Your task to perform on an android device: Add "usb-c to usb-b" to the cart on bestbuy.com Image 0: 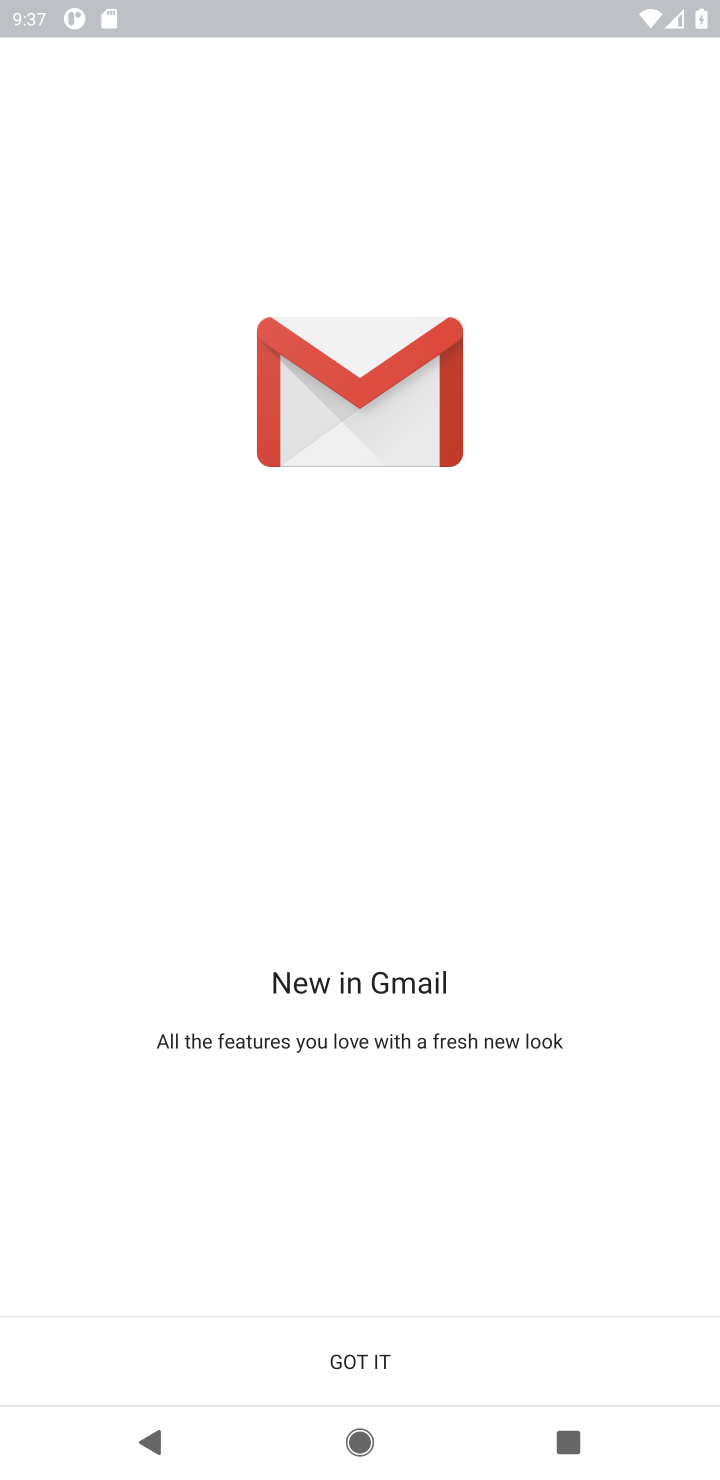
Step 0: press home button
Your task to perform on an android device: Add "usb-c to usb-b" to the cart on bestbuy.com Image 1: 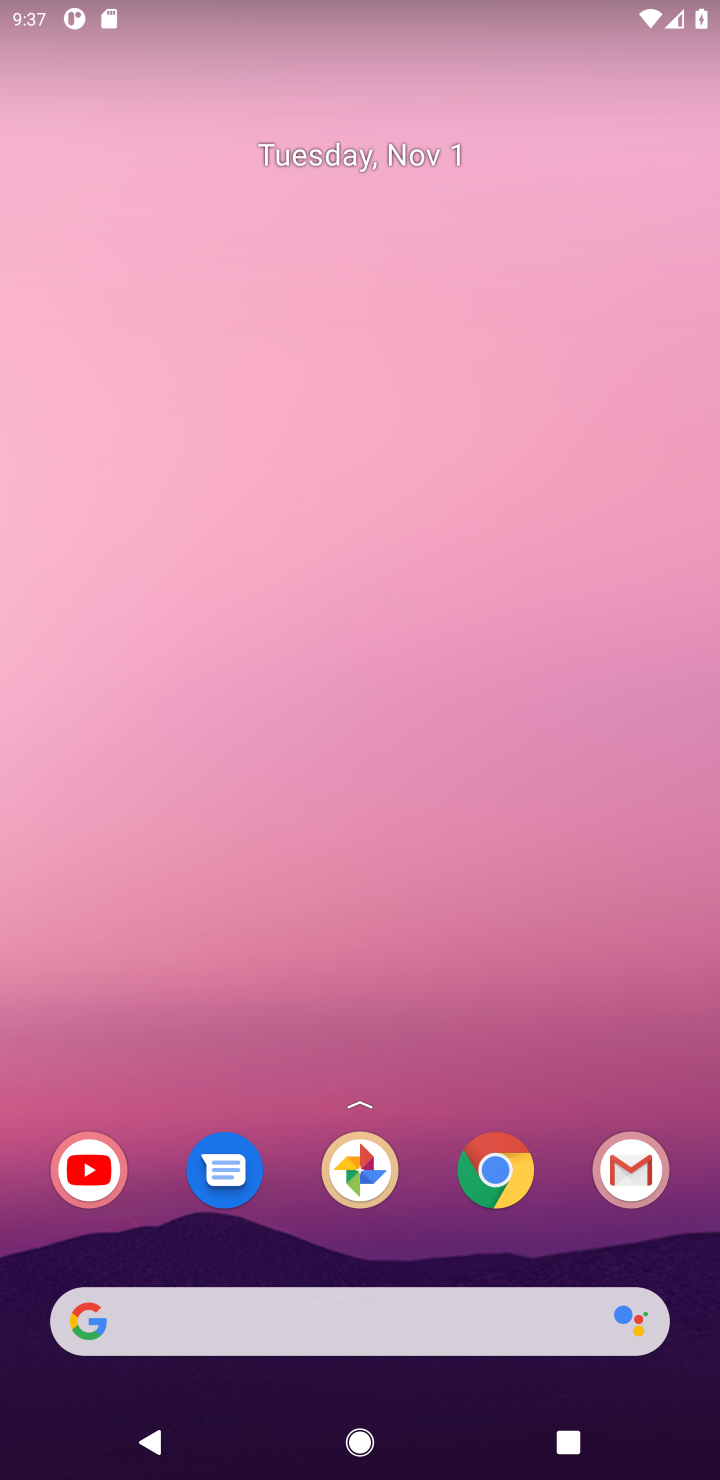
Step 1: click (503, 1202)
Your task to perform on an android device: Add "usb-c to usb-b" to the cart on bestbuy.com Image 2: 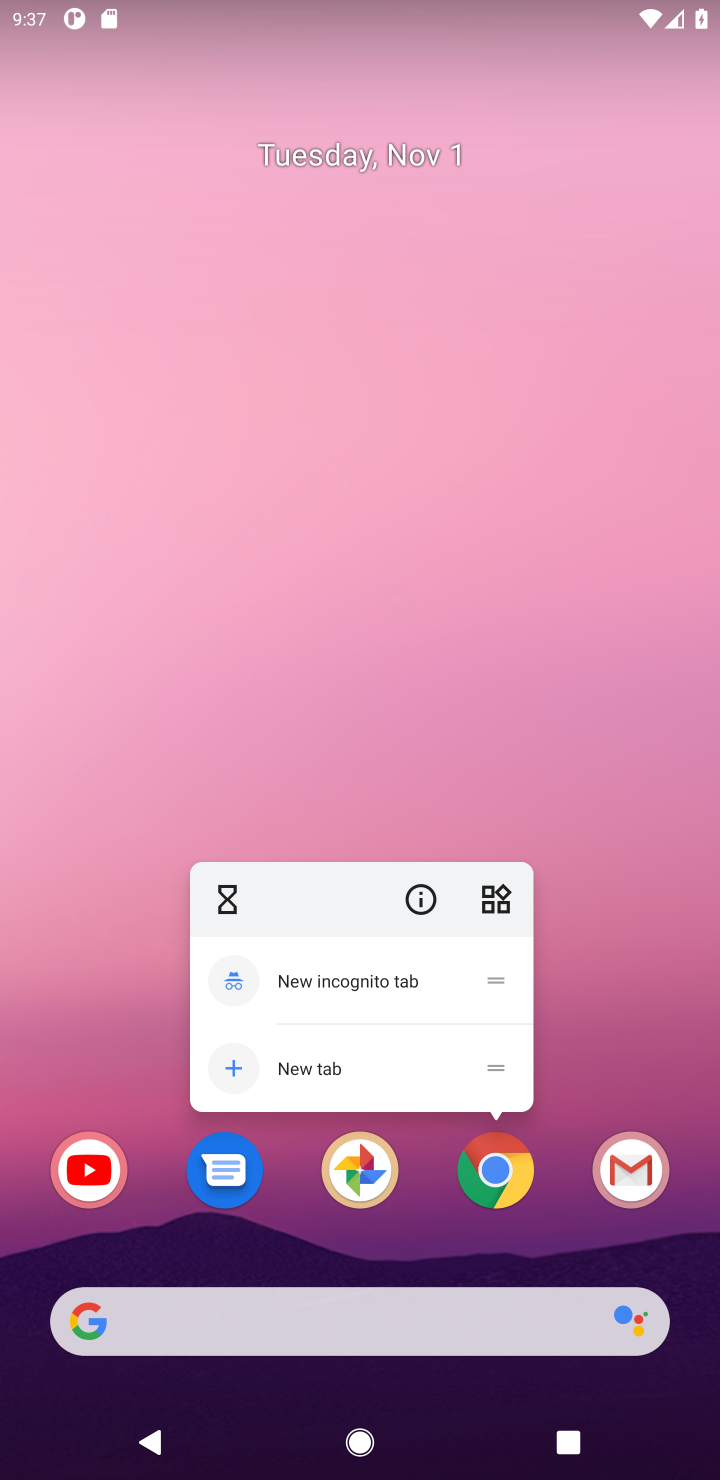
Step 2: click (514, 1169)
Your task to perform on an android device: Add "usb-c to usb-b" to the cart on bestbuy.com Image 3: 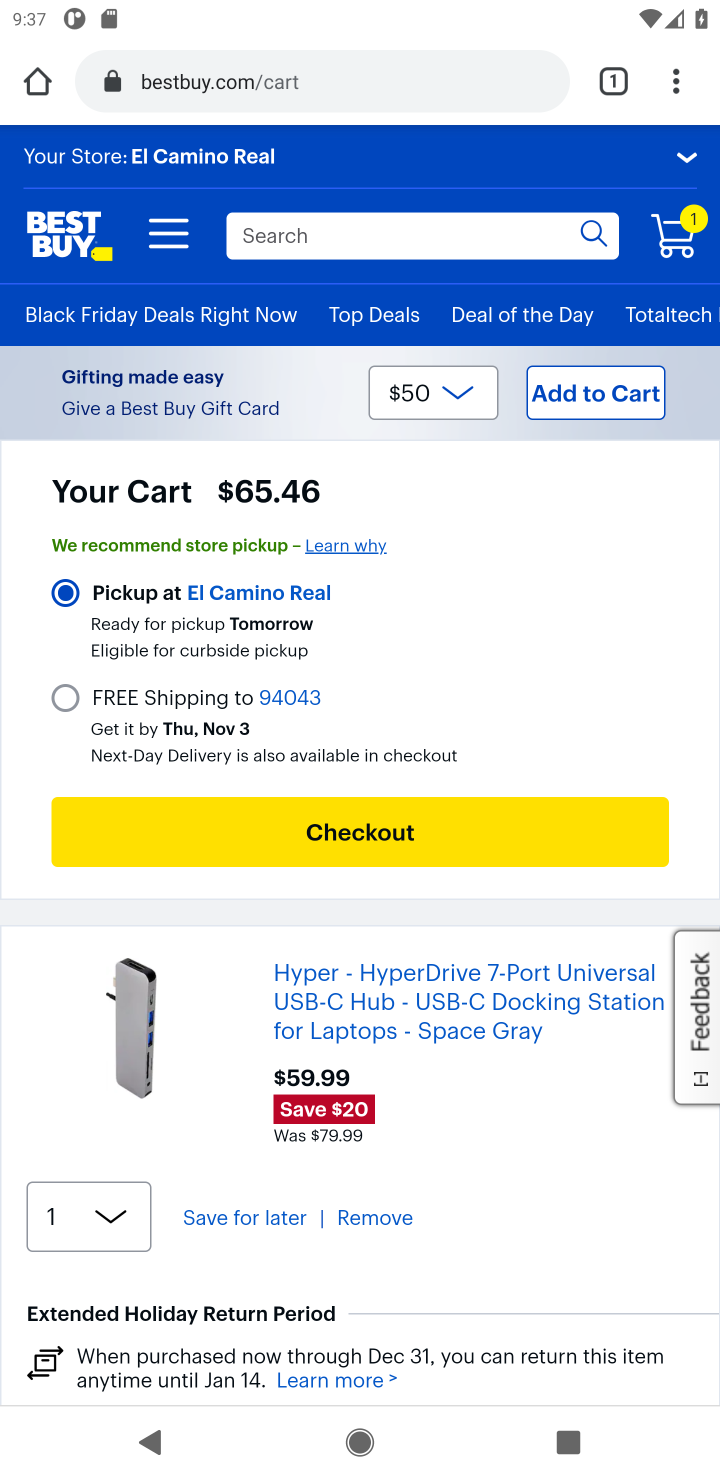
Step 3: click (344, 57)
Your task to perform on an android device: Add "usb-c to usb-b" to the cart on bestbuy.com Image 4: 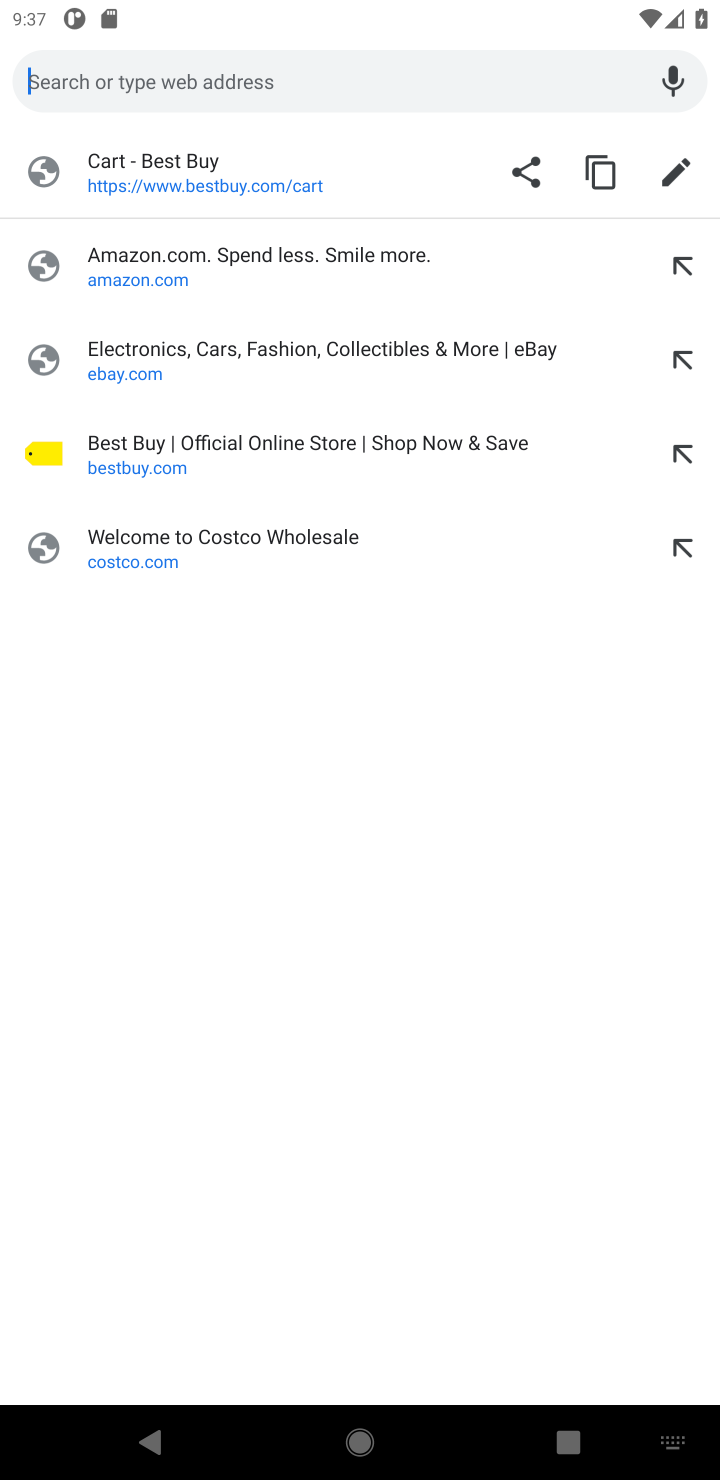
Step 4: type "bestbuy.com"
Your task to perform on an android device: Add "usb-c to usb-b" to the cart on bestbuy.com Image 5: 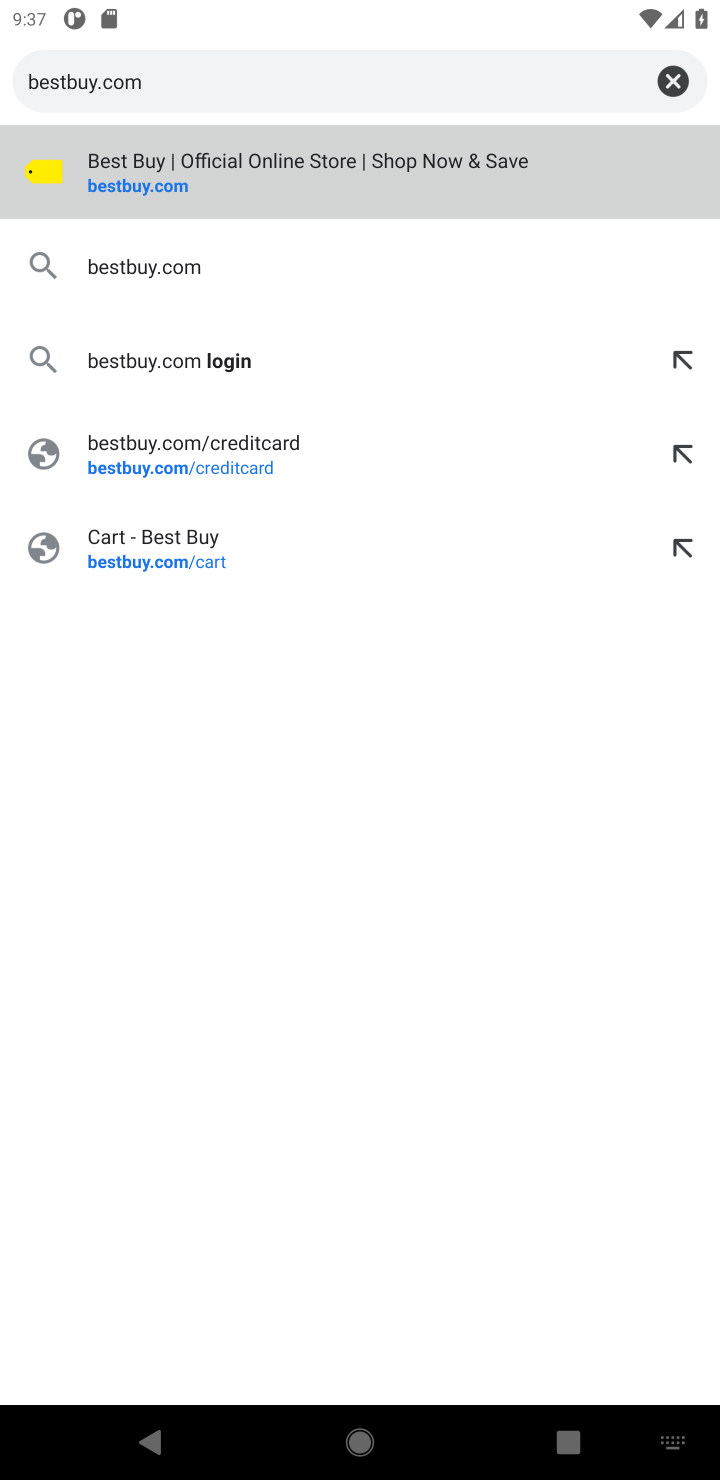
Step 5: press enter
Your task to perform on an android device: Add "usb-c to usb-b" to the cart on bestbuy.com Image 6: 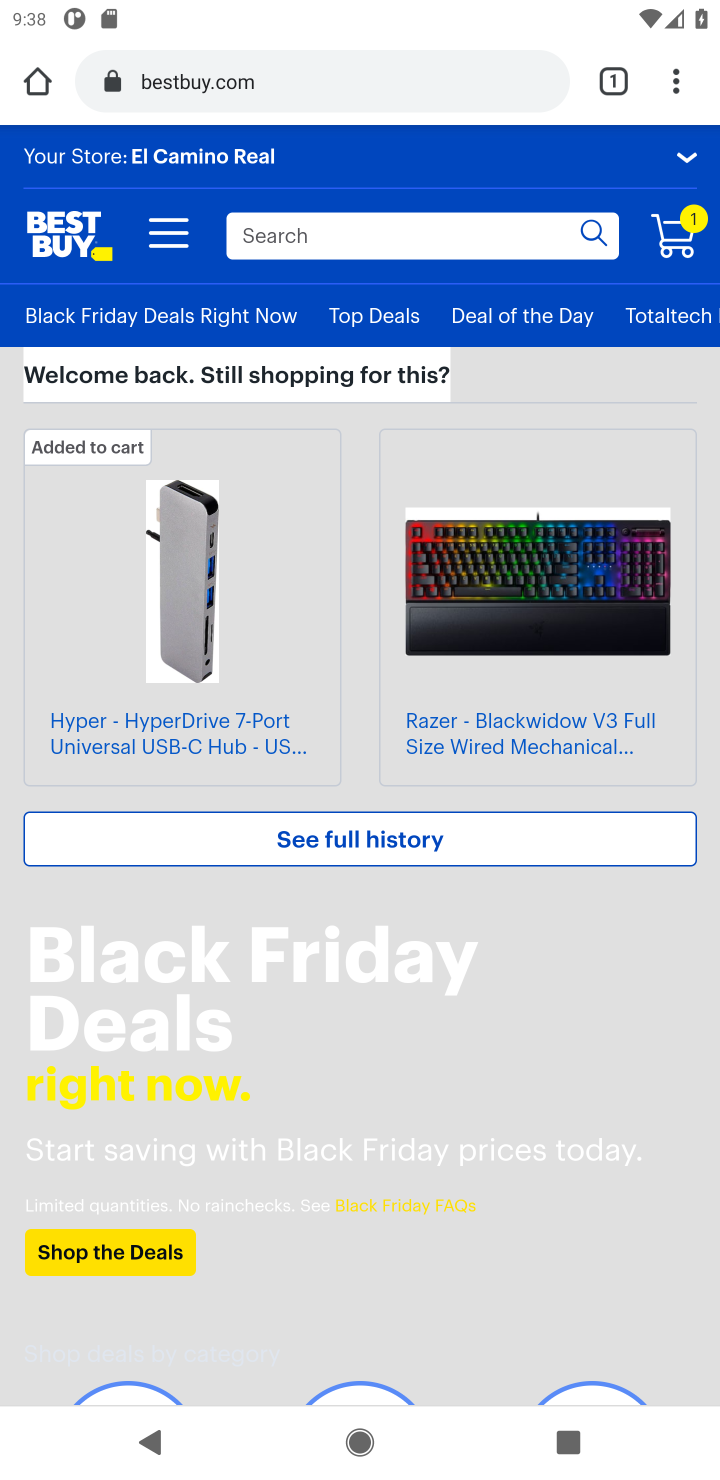
Step 6: click (404, 230)
Your task to perform on an android device: Add "usb-c to usb-b" to the cart on bestbuy.com Image 7: 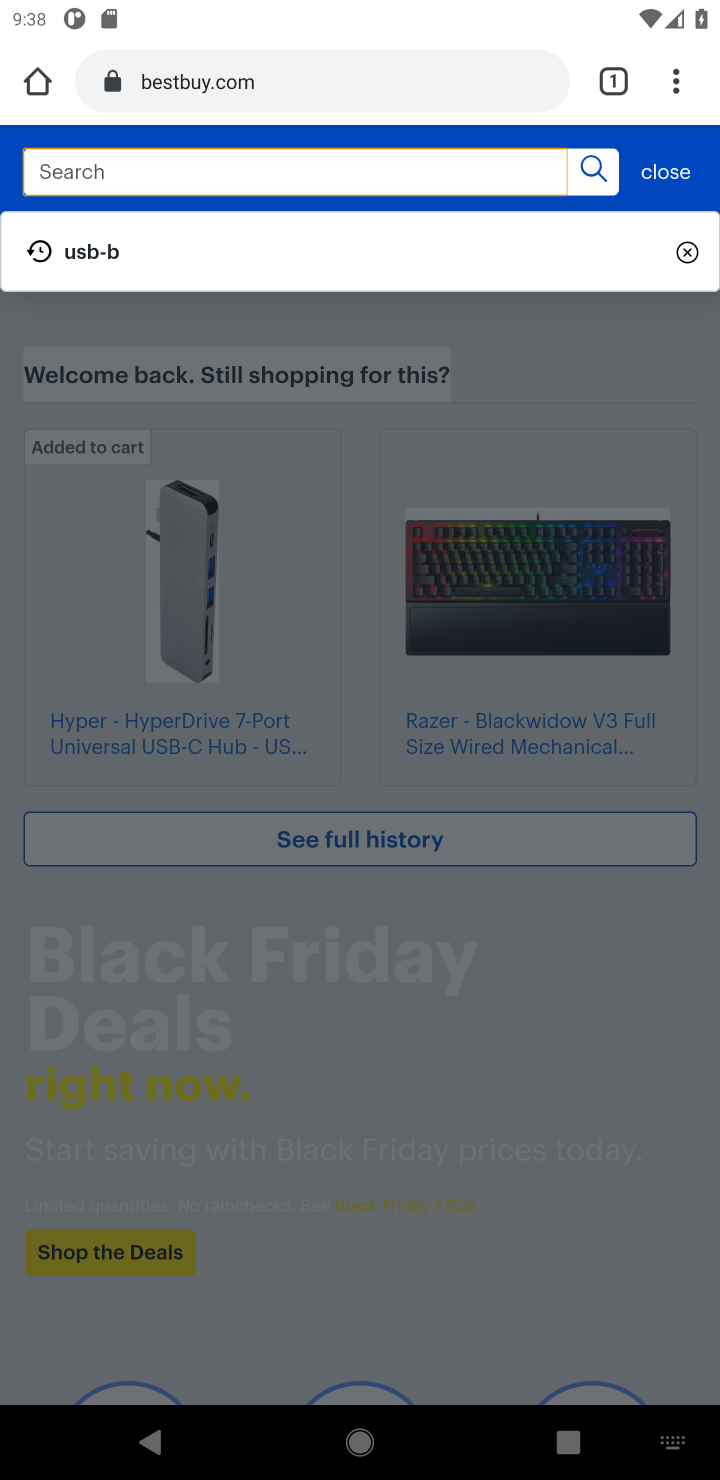
Step 7: type "usb-c to usb-b"
Your task to perform on an android device: Add "usb-c to usb-b" to the cart on bestbuy.com Image 8: 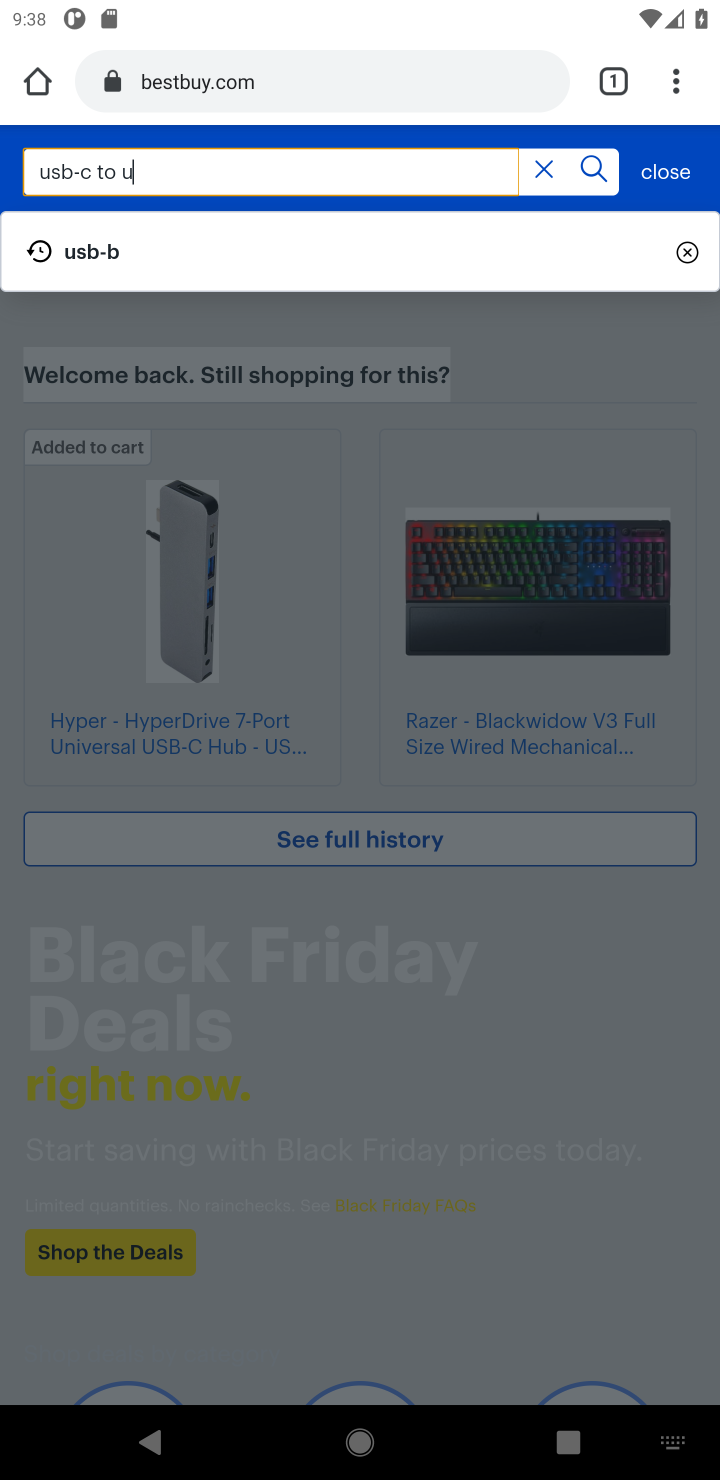
Step 8: type ""
Your task to perform on an android device: Add "usb-c to usb-b" to the cart on bestbuy.com Image 9: 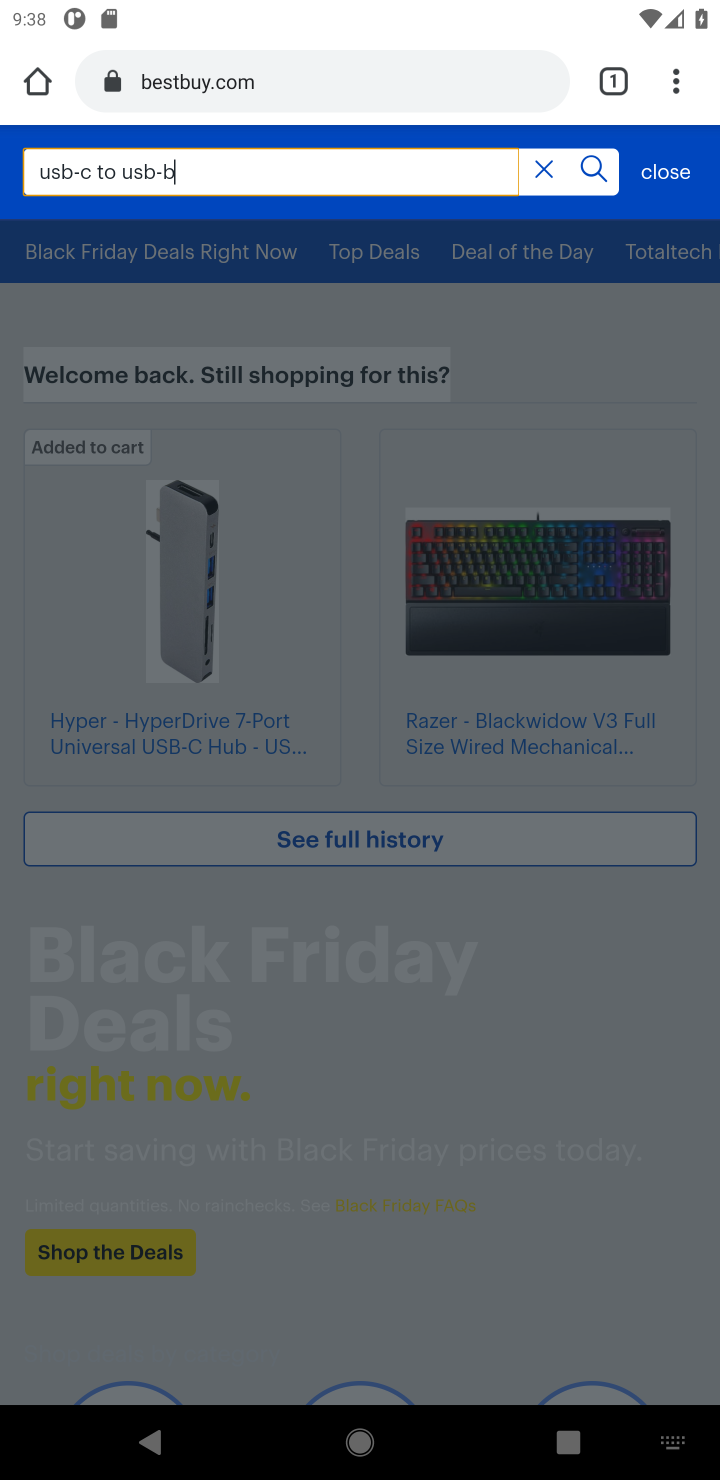
Step 9: press enter
Your task to perform on an android device: Add "usb-c to usb-b" to the cart on bestbuy.com Image 10: 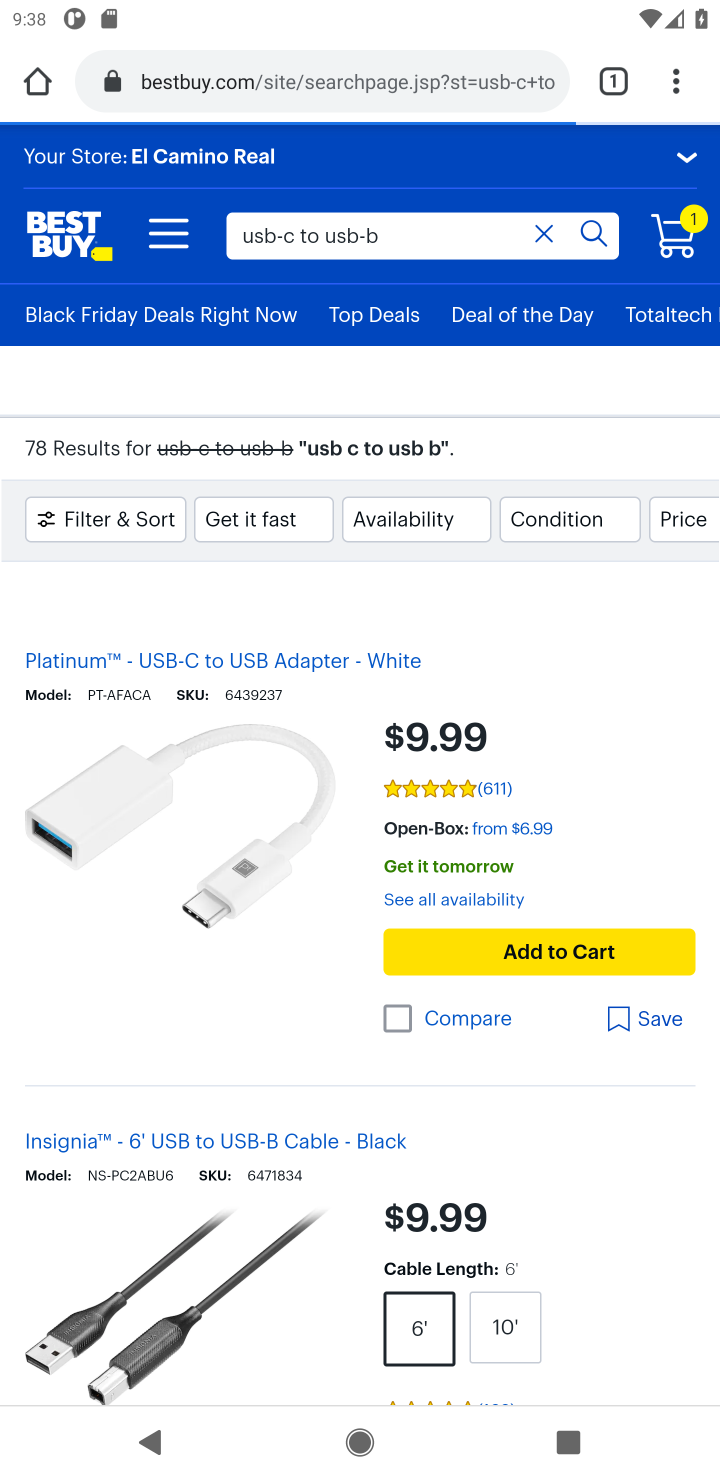
Step 10: click (463, 759)
Your task to perform on an android device: Add "usb-c to usb-b" to the cart on bestbuy.com Image 11: 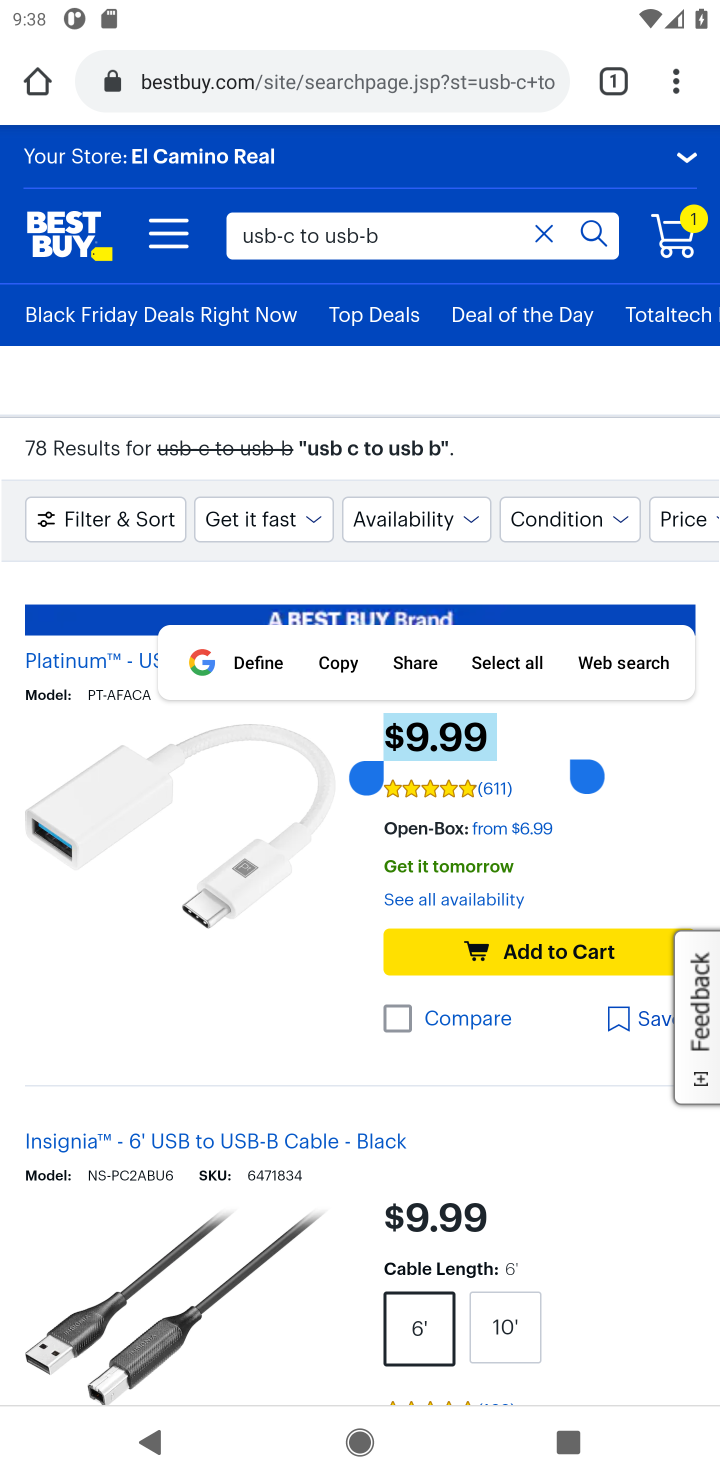
Step 11: click (281, 815)
Your task to perform on an android device: Add "usb-c to usb-b" to the cart on bestbuy.com Image 12: 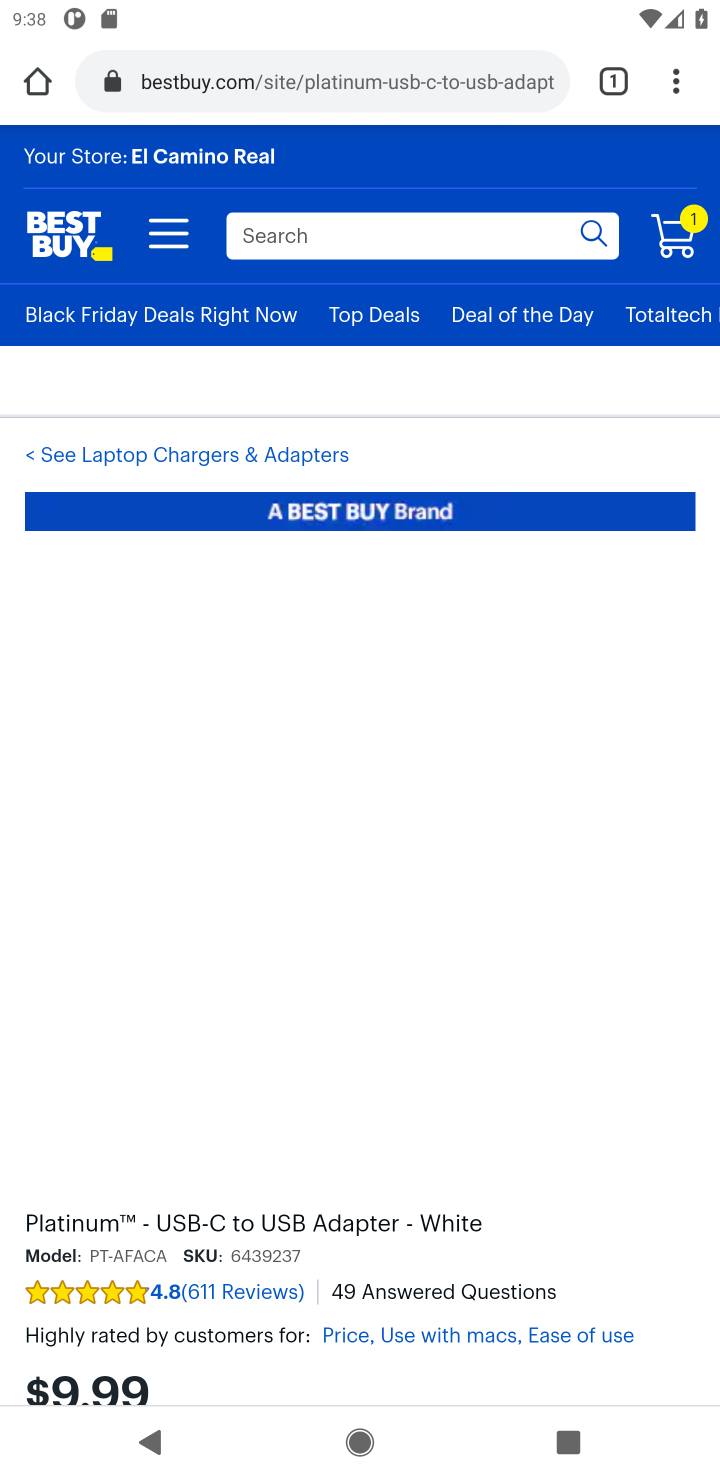
Step 12: drag from (523, 1250) to (353, 377)
Your task to perform on an android device: Add "usb-c to usb-b" to the cart on bestbuy.com Image 13: 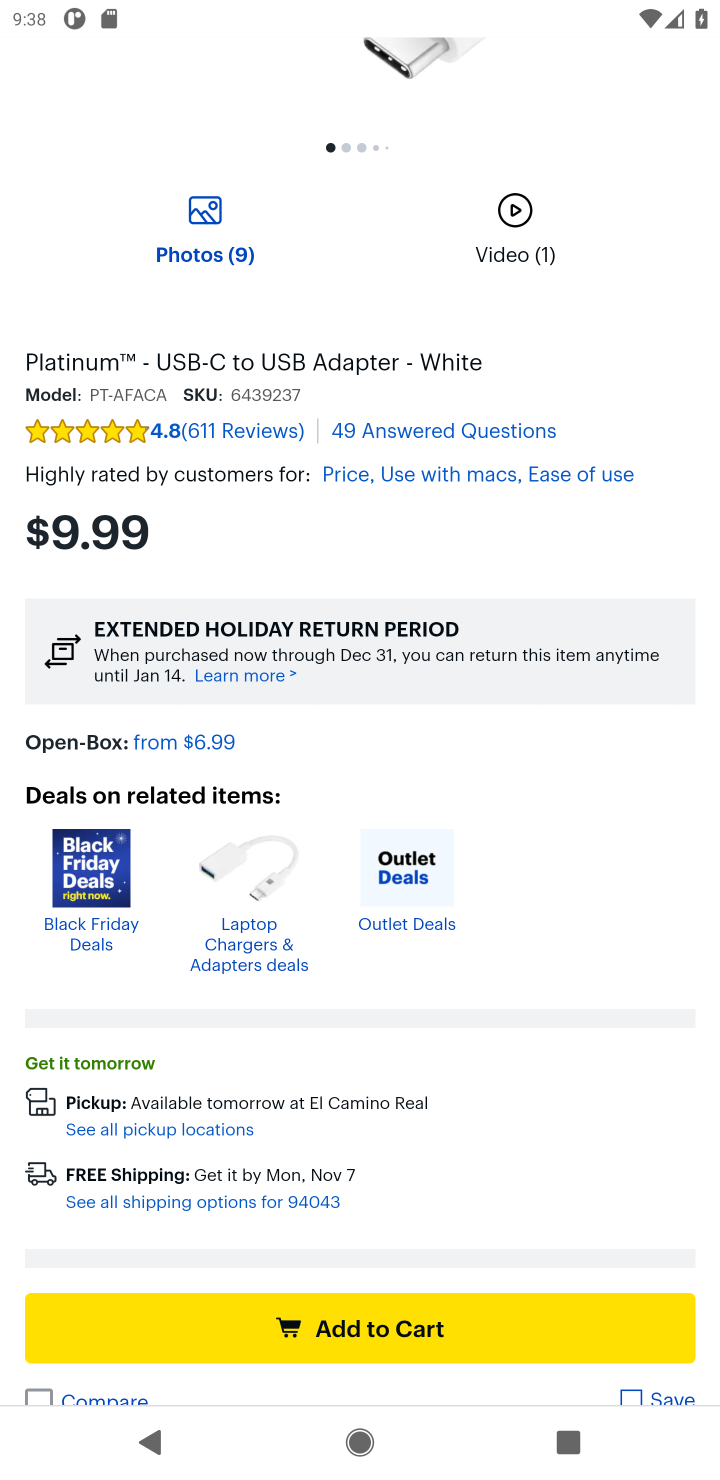
Step 13: click (404, 1309)
Your task to perform on an android device: Add "usb-c to usb-b" to the cart on bestbuy.com Image 14: 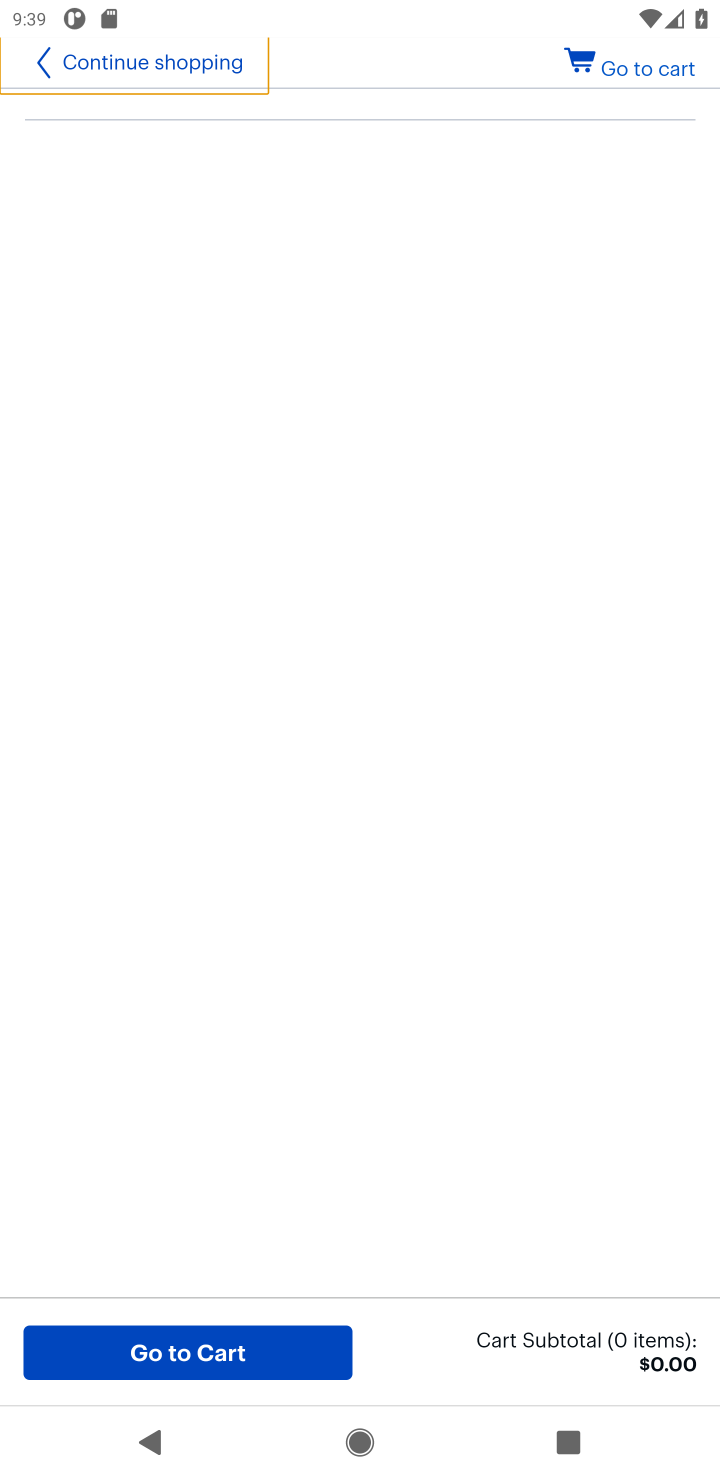
Step 14: task complete